Your task to perform on an android device: toggle airplane mode Image 0: 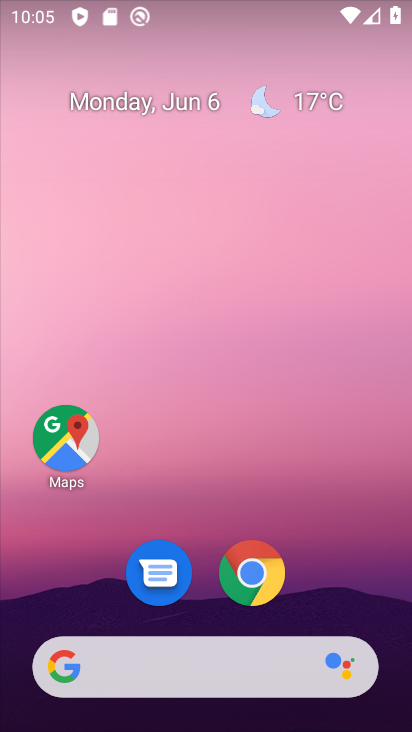
Step 0: drag from (347, 588) to (320, 212)
Your task to perform on an android device: toggle airplane mode Image 1: 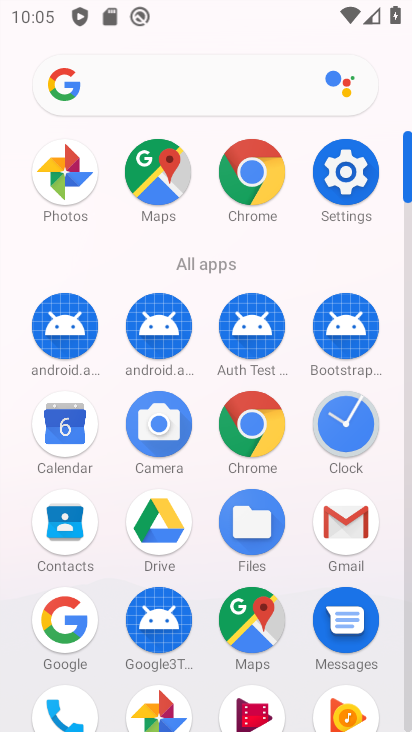
Step 1: click (357, 184)
Your task to perform on an android device: toggle airplane mode Image 2: 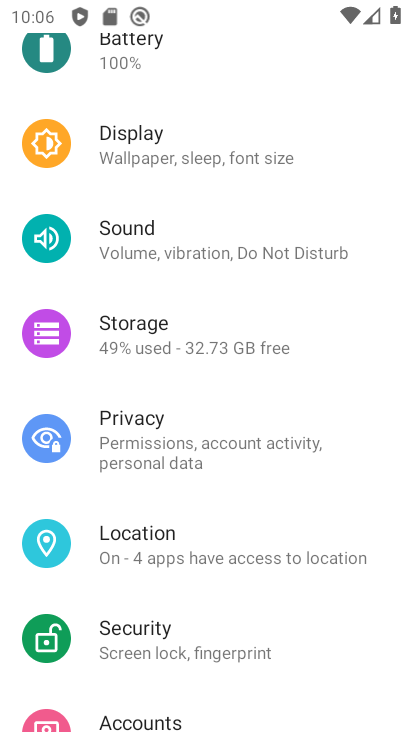
Step 2: drag from (225, 113) to (243, 540)
Your task to perform on an android device: toggle airplane mode Image 3: 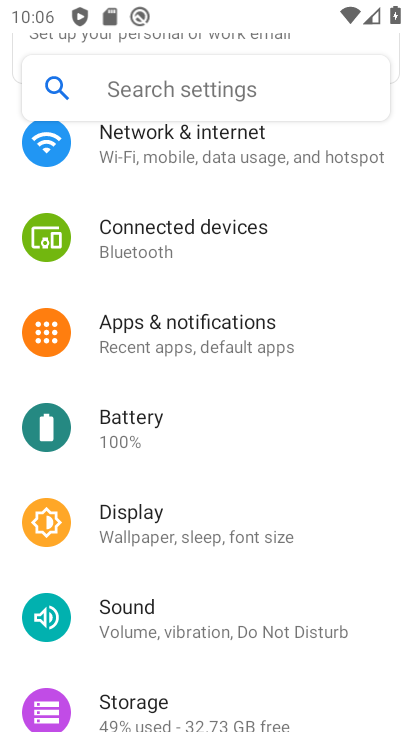
Step 3: click (212, 157)
Your task to perform on an android device: toggle airplane mode Image 4: 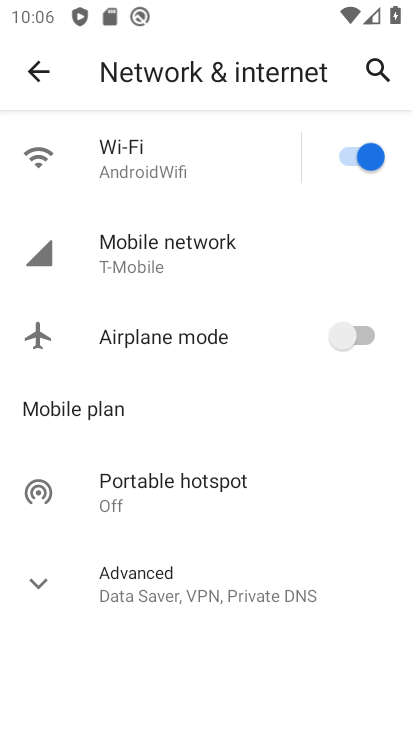
Step 4: click (355, 337)
Your task to perform on an android device: toggle airplane mode Image 5: 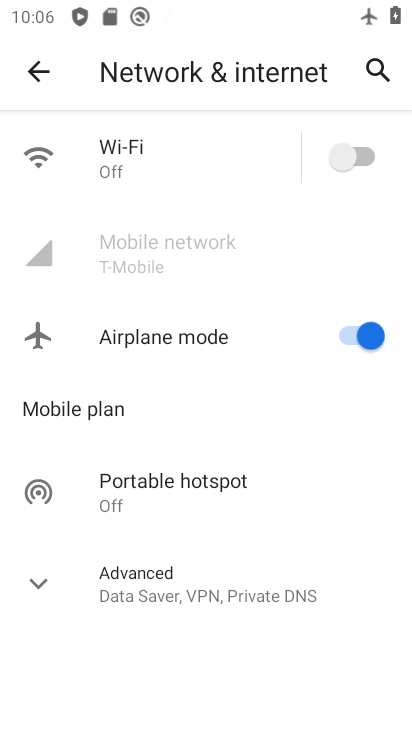
Step 5: task complete